Your task to perform on an android device: turn off smart reply in the gmail app Image 0: 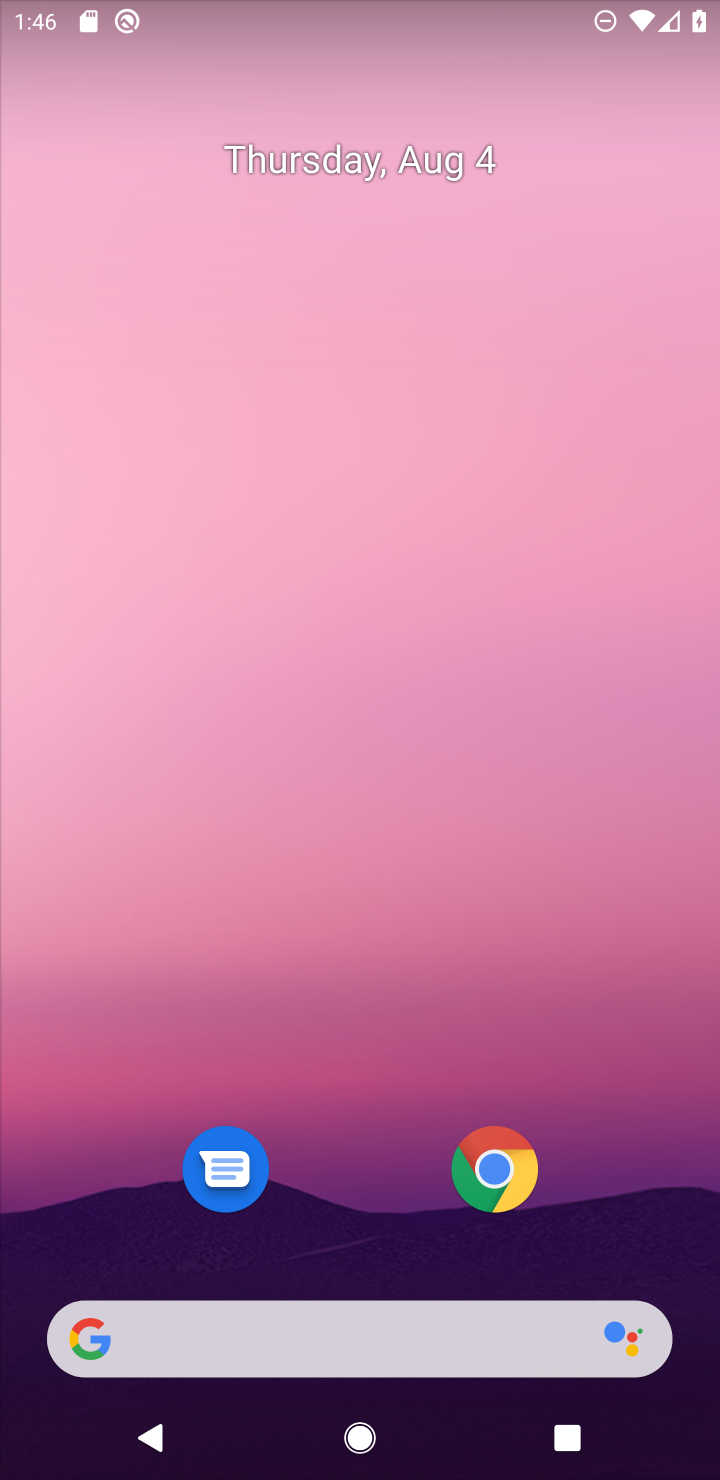
Step 0: drag from (367, 681) to (335, 64)
Your task to perform on an android device: turn off smart reply in the gmail app Image 1: 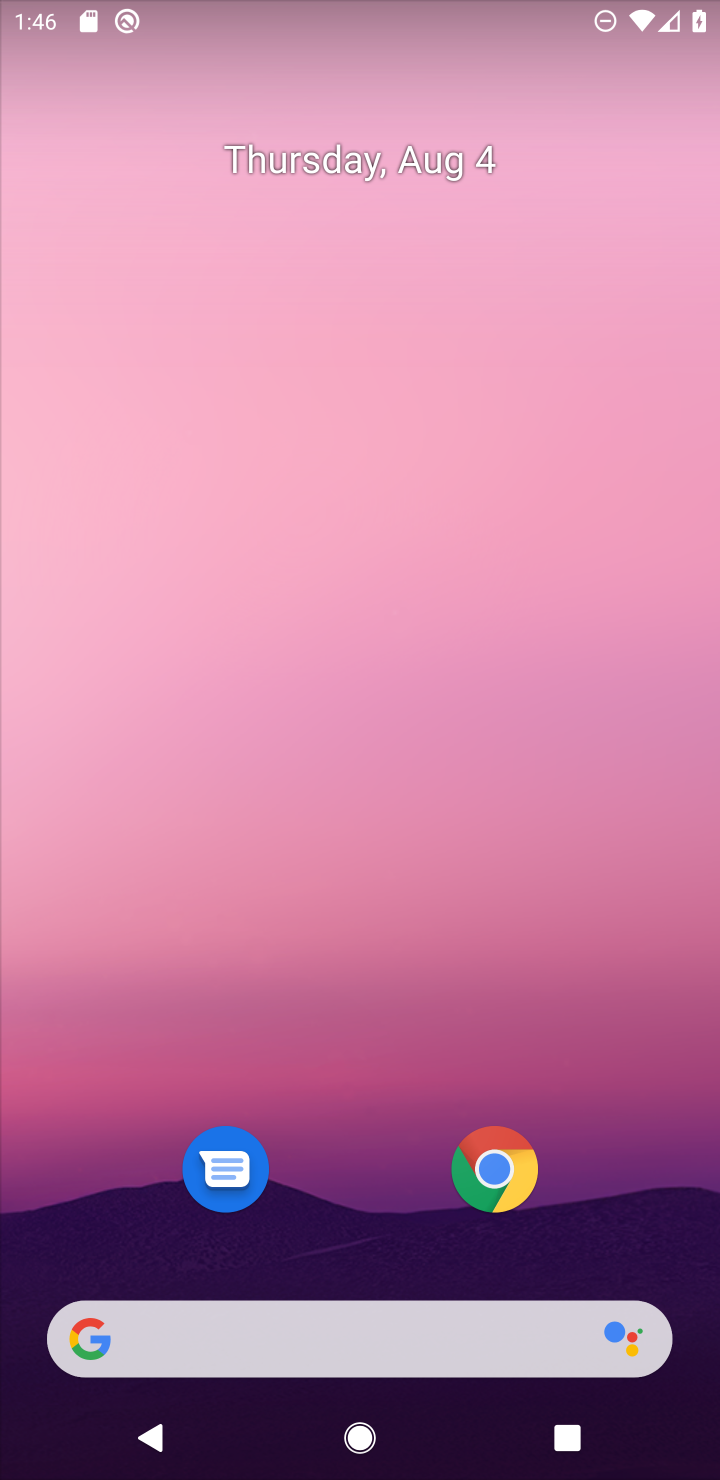
Step 1: drag from (391, 1134) to (362, 0)
Your task to perform on an android device: turn off smart reply in the gmail app Image 2: 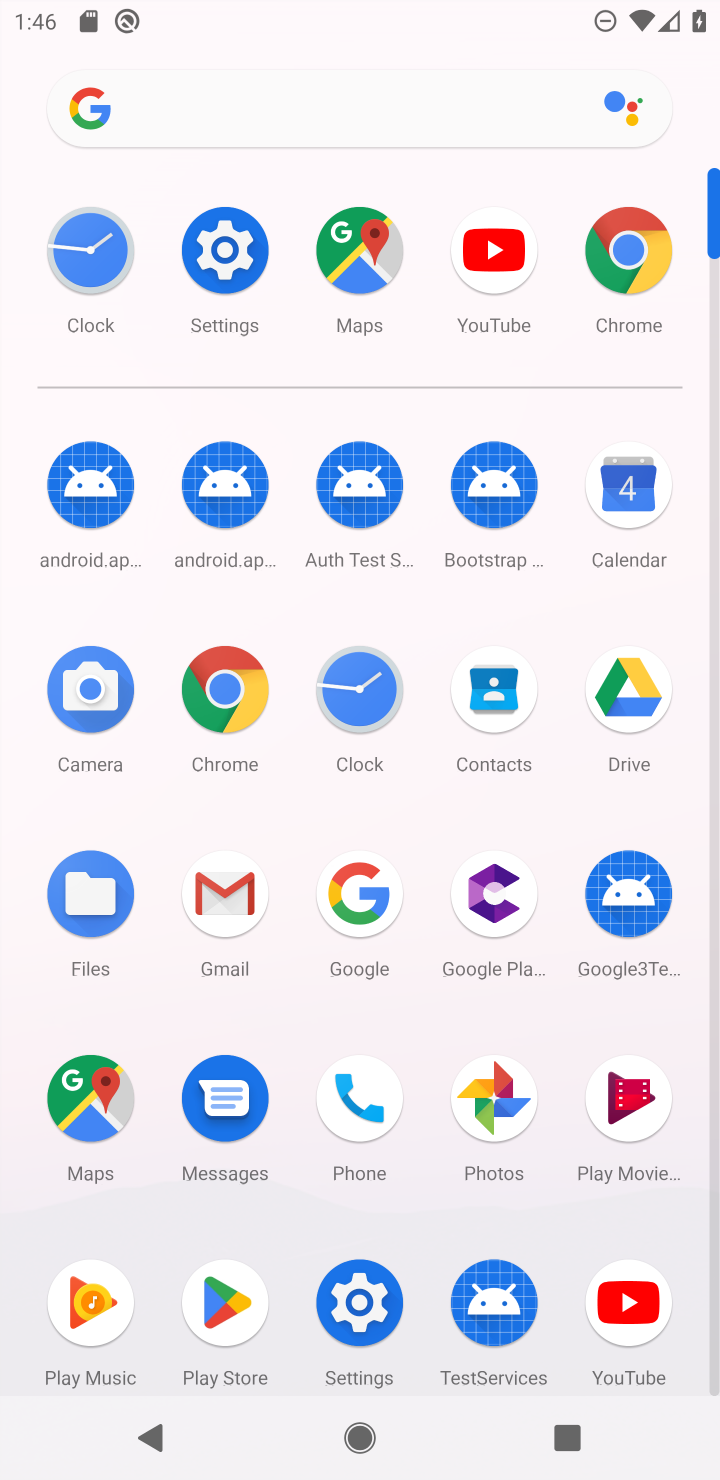
Step 2: click (222, 908)
Your task to perform on an android device: turn off smart reply in the gmail app Image 3: 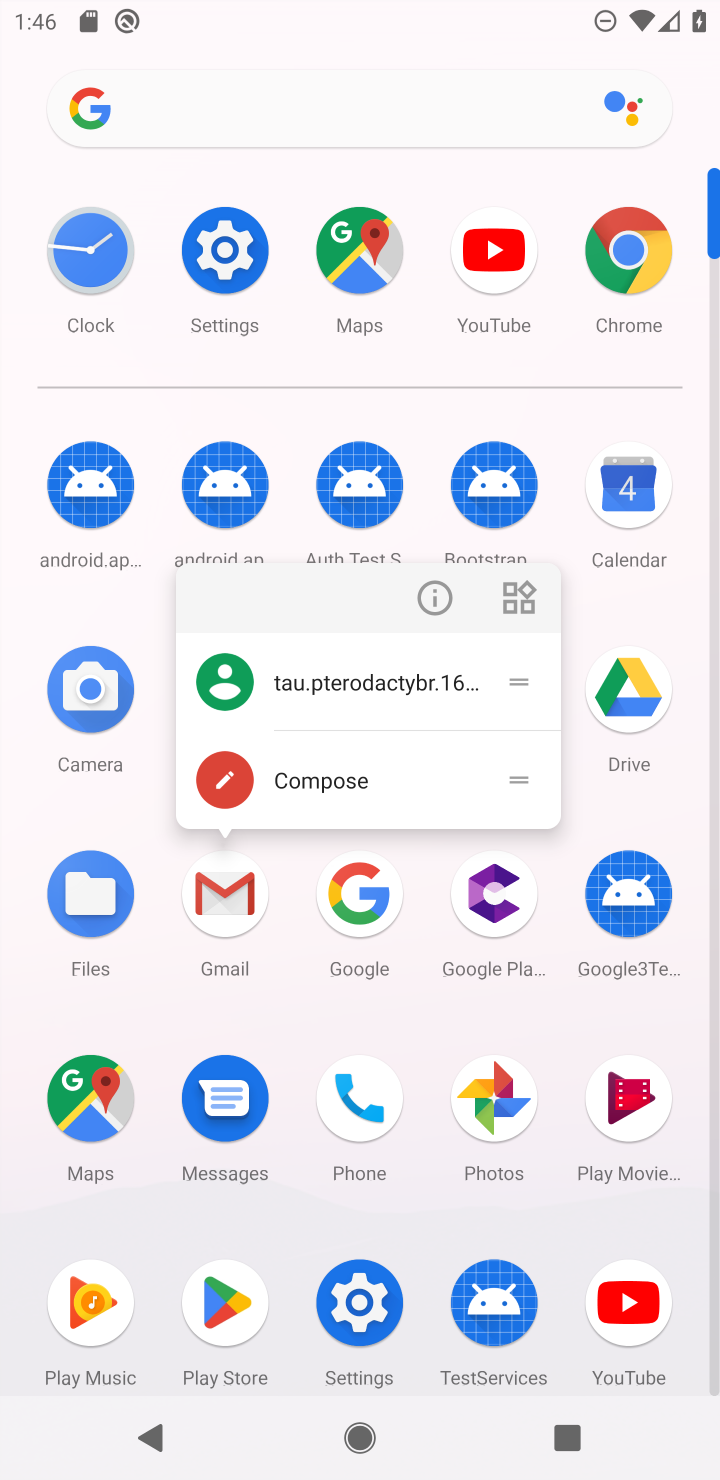
Step 3: click (222, 908)
Your task to perform on an android device: turn off smart reply in the gmail app Image 4: 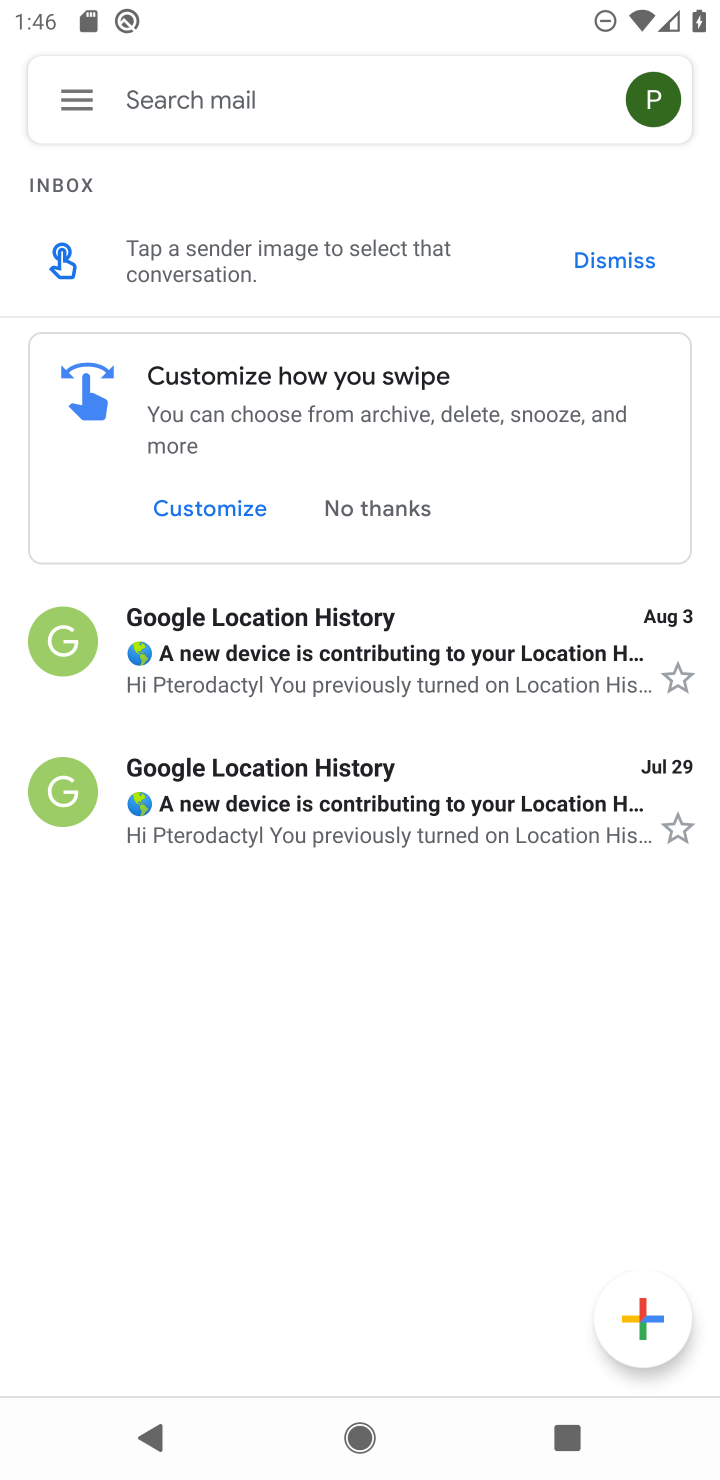
Step 4: click (76, 94)
Your task to perform on an android device: turn off smart reply in the gmail app Image 5: 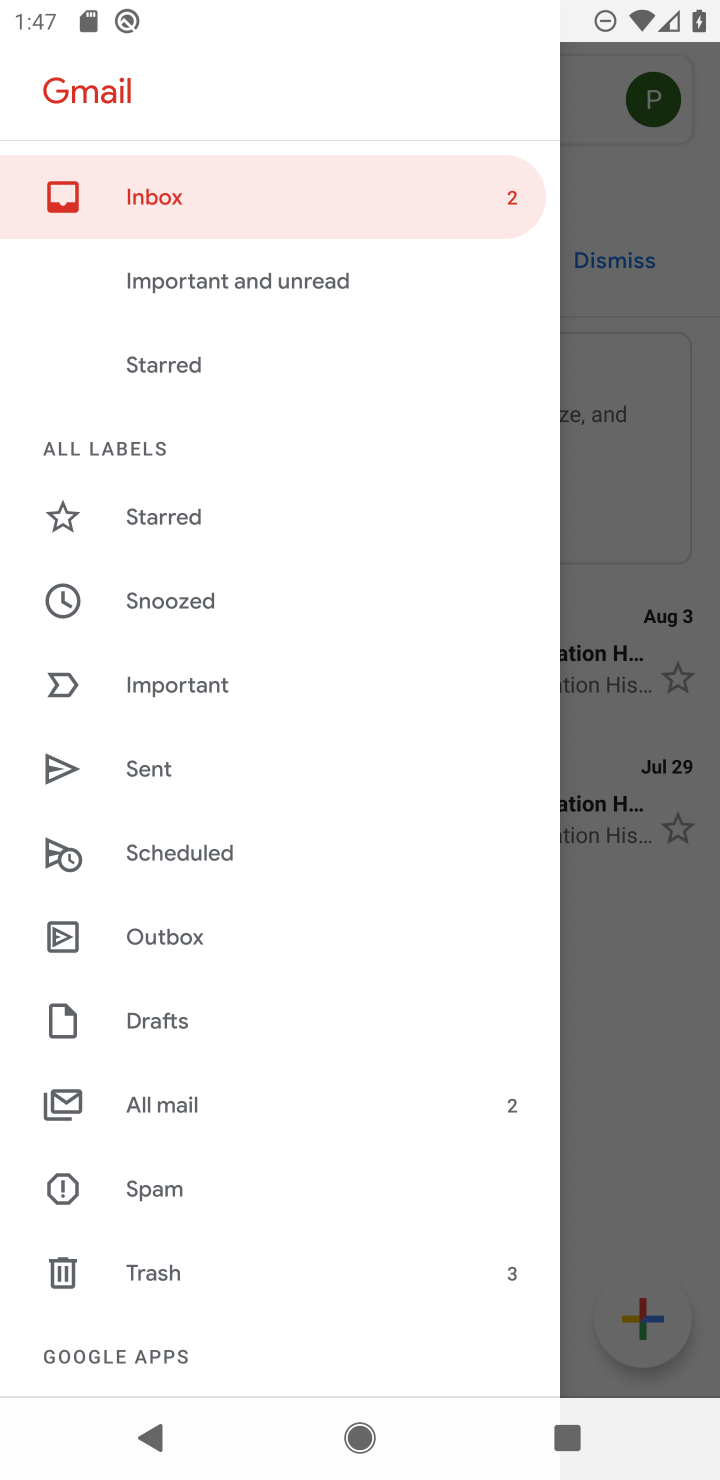
Step 5: drag from (233, 1225) to (259, 477)
Your task to perform on an android device: turn off smart reply in the gmail app Image 6: 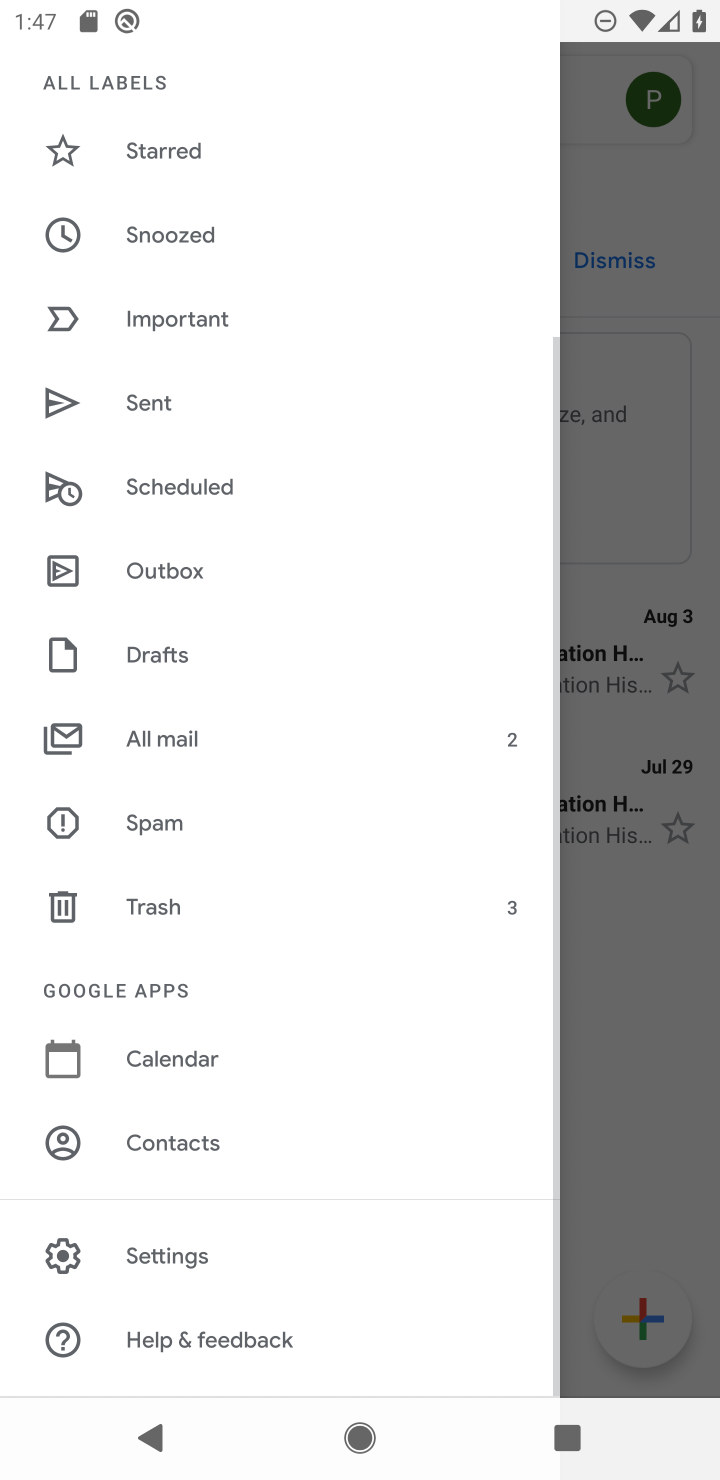
Step 6: click (135, 1270)
Your task to perform on an android device: turn off smart reply in the gmail app Image 7: 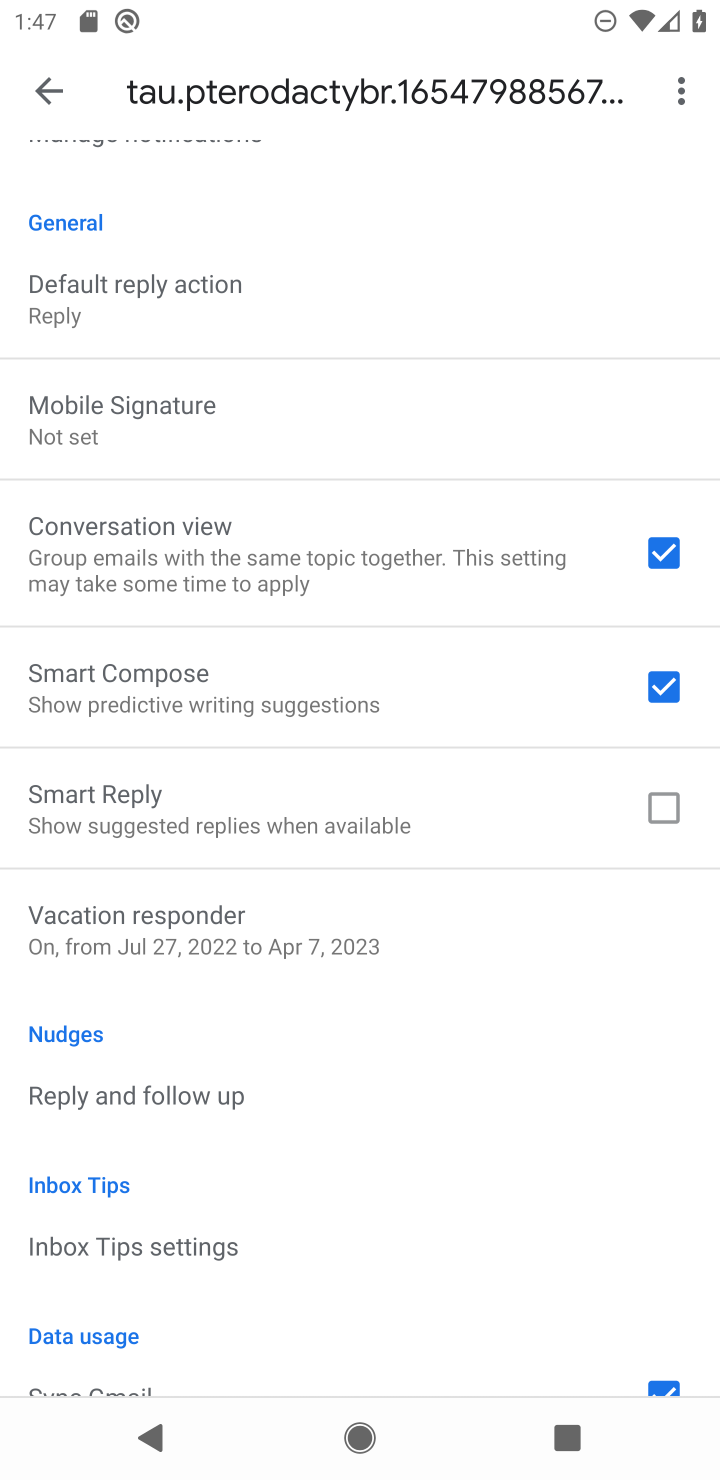
Step 7: task complete